Your task to perform on an android device: What's on my calendar tomorrow? Image 0: 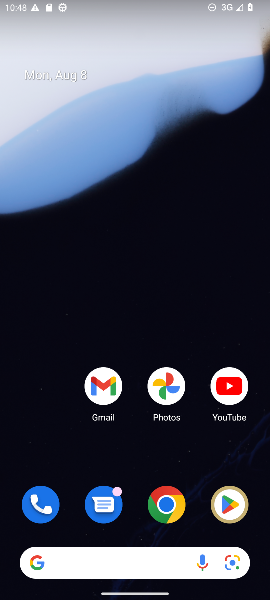
Step 0: click (266, 244)
Your task to perform on an android device: What's on my calendar tomorrow? Image 1: 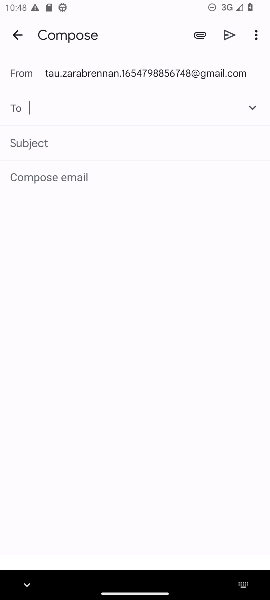
Step 1: drag from (143, 459) to (153, 330)
Your task to perform on an android device: What's on my calendar tomorrow? Image 2: 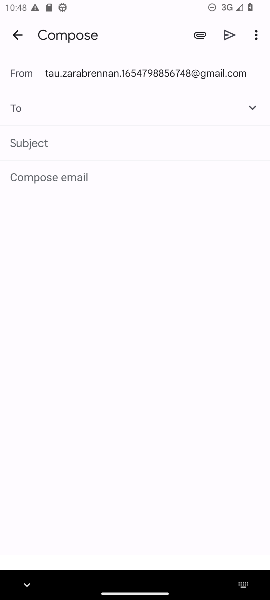
Step 2: press home button
Your task to perform on an android device: What's on my calendar tomorrow? Image 3: 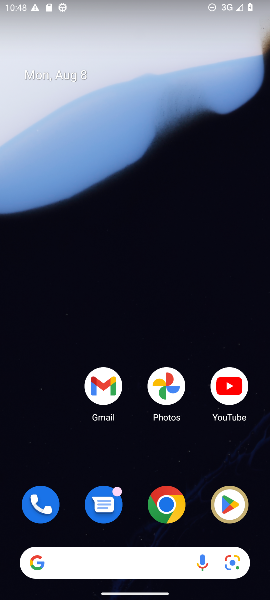
Step 3: drag from (138, 516) to (97, 94)
Your task to perform on an android device: What's on my calendar tomorrow? Image 4: 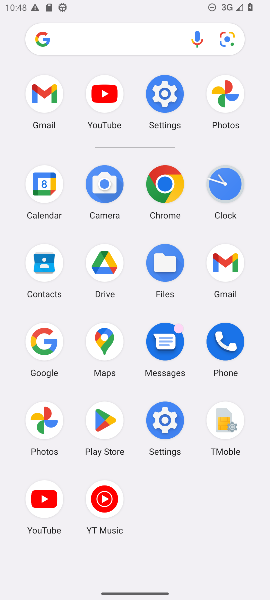
Step 4: click (40, 190)
Your task to perform on an android device: What's on my calendar tomorrow? Image 5: 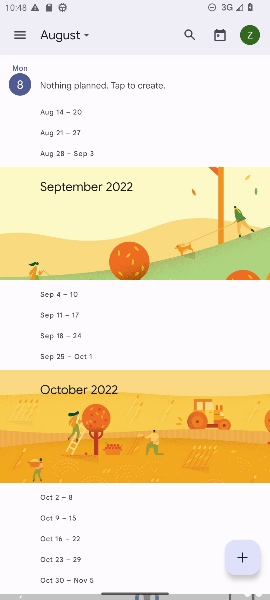
Step 5: click (20, 32)
Your task to perform on an android device: What's on my calendar tomorrow? Image 6: 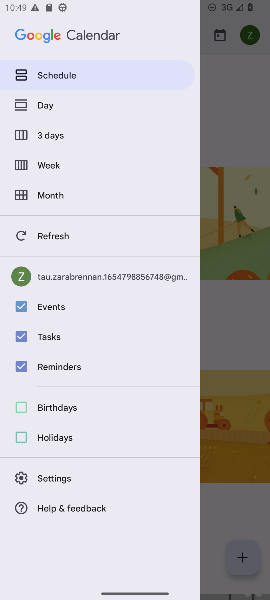
Step 6: click (53, 105)
Your task to perform on an android device: What's on my calendar tomorrow? Image 7: 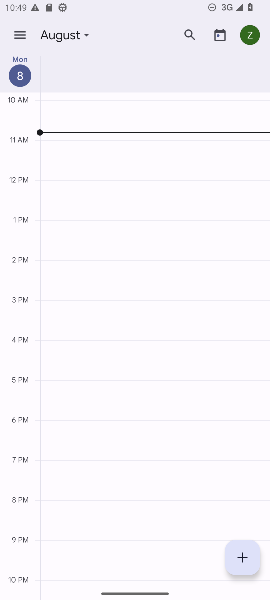
Step 7: task complete